Your task to perform on an android device: empty trash in google photos Image 0: 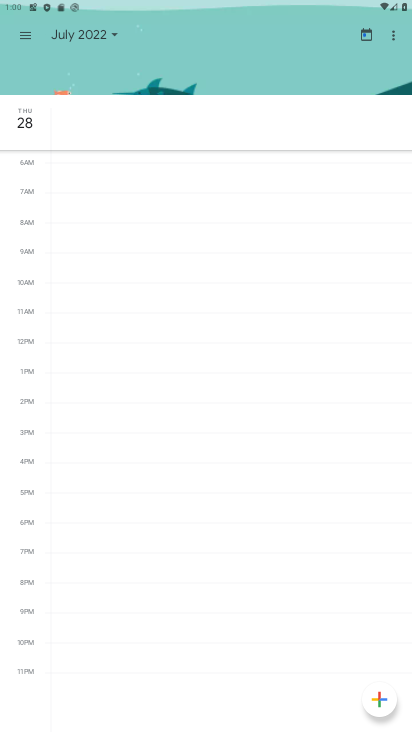
Step 0: press home button
Your task to perform on an android device: empty trash in google photos Image 1: 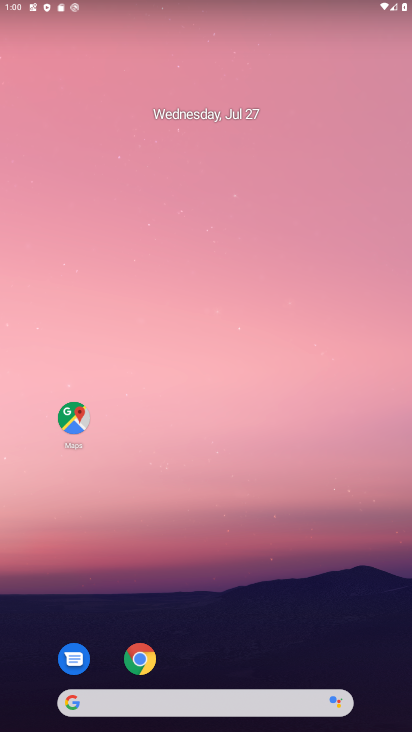
Step 1: drag from (224, 663) to (211, 54)
Your task to perform on an android device: empty trash in google photos Image 2: 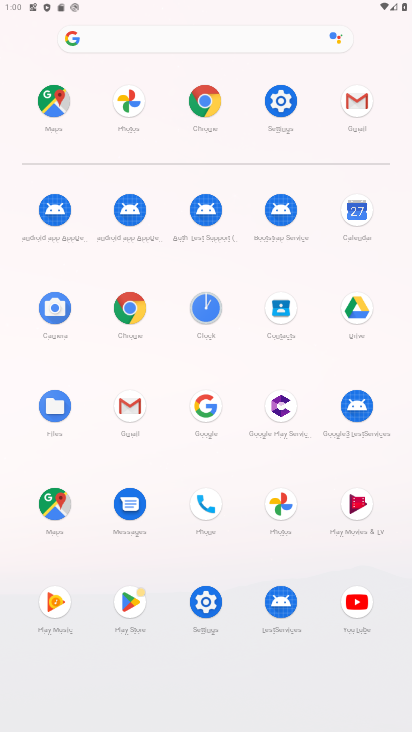
Step 2: click (277, 502)
Your task to perform on an android device: empty trash in google photos Image 3: 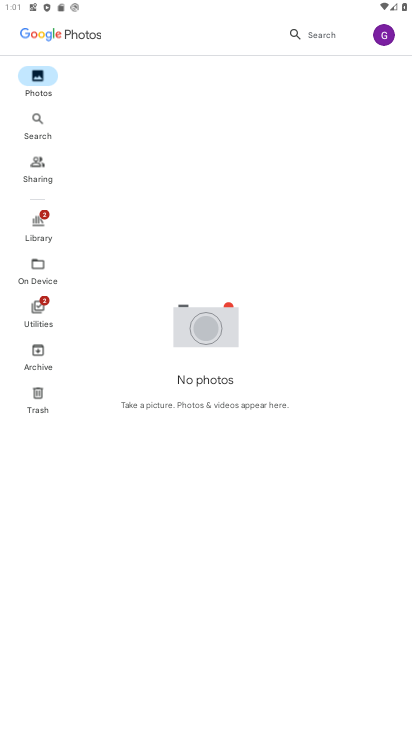
Step 3: click (33, 387)
Your task to perform on an android device: empty trash in google photos Image 4: 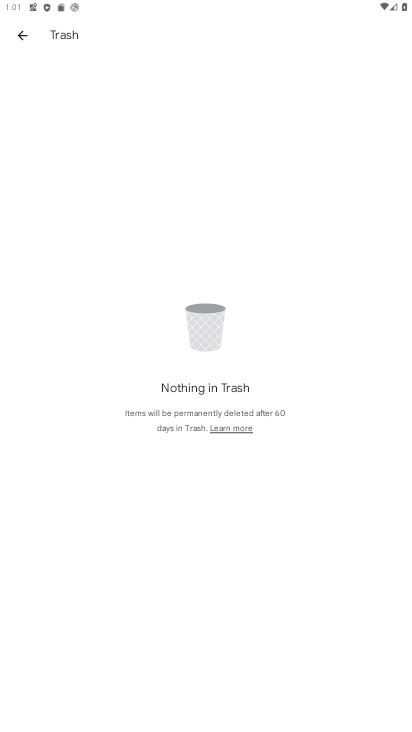
Step 4: task complete